Your task to perform on an android device: allow notifications from all sites in the chrome app Image 0: 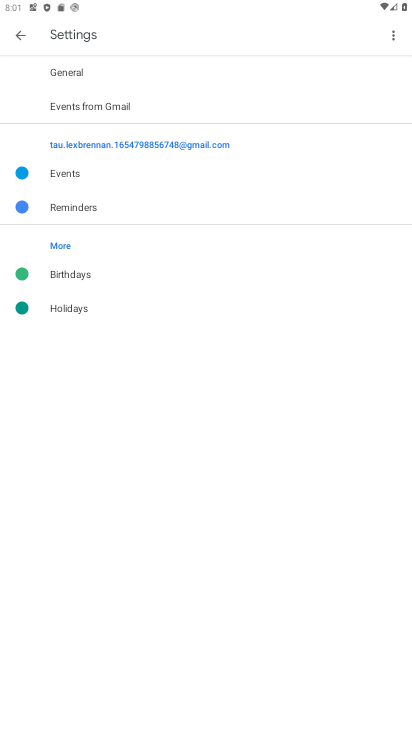
Step 0: press home button
Your task to perform on an android device: allow notifications from all sites in the chrome app Image 1: 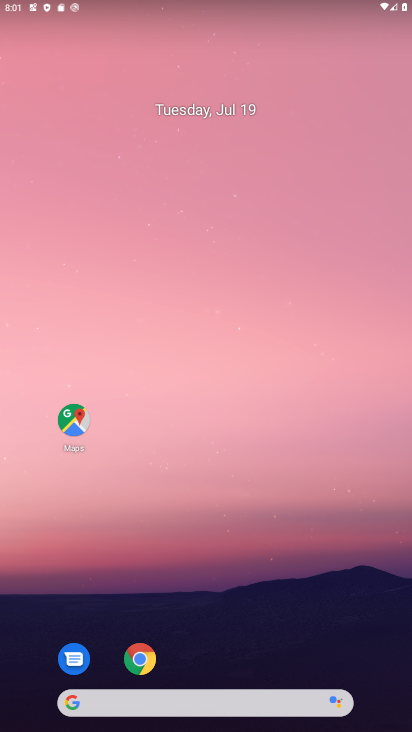
Step 1: click (137, 663)
Your task to perform on an android device: allow notifications from all sites in the chrome app Image 2: 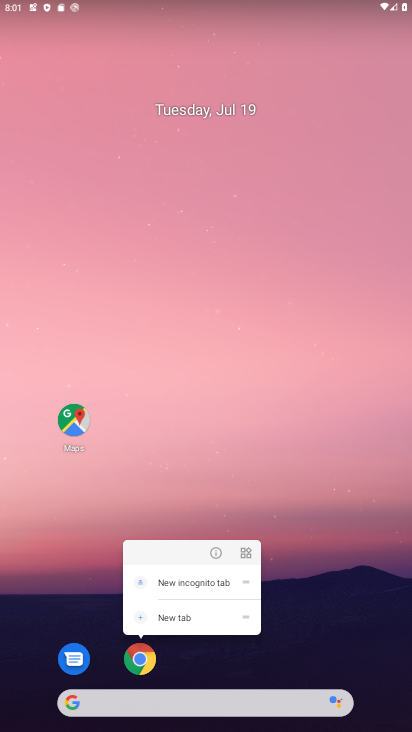
Step 2: click (141, 665)
Your task to perform on an android device: allow notifications from all sites in the chrome app Image 3: 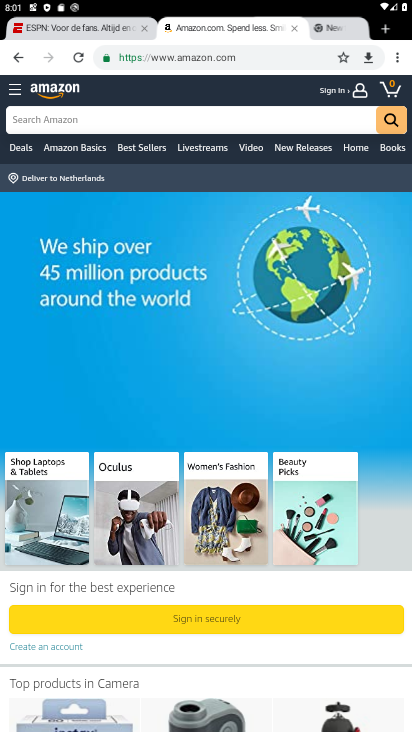
Step 3: click (397, 61)
Your task to perform on an android device: allow notifications from all sites in the chrome app Image 4: 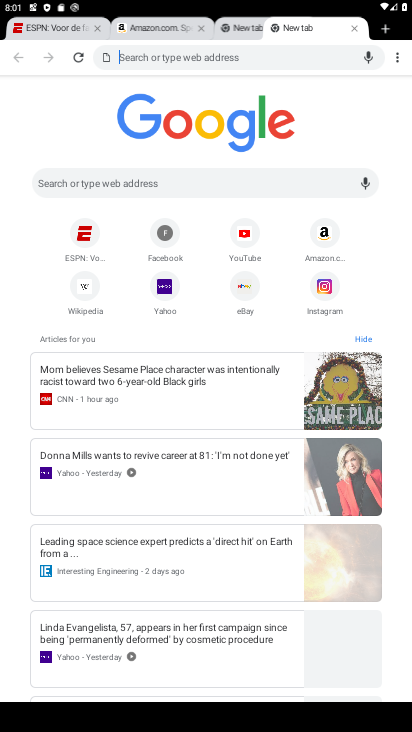
Step 4: click (395, 61)
Your task to perform on an android device: allow notifications from all sites in the chrome app Image 5: 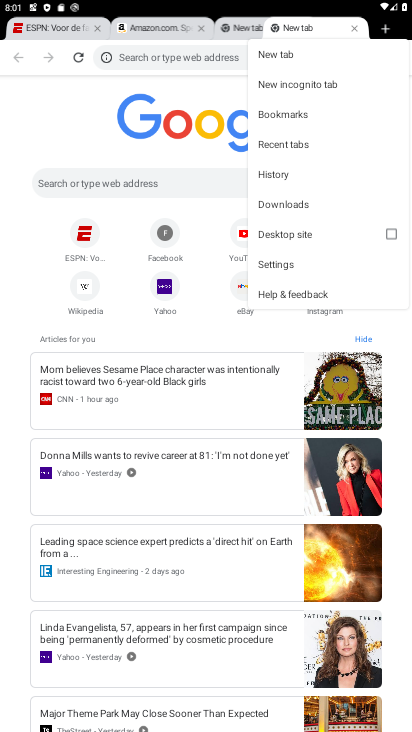
Step 5: click (274, 253)
Your task to perform on an android device: allow notifications from all sites in the chrome app Image 6: 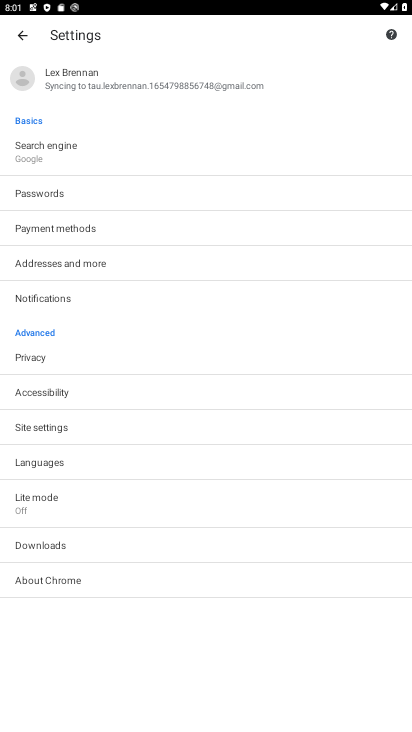
Step 6: click (26, 433)
Your task to perform on an android device: allow notifications from all sites in the chrome app Image 7: 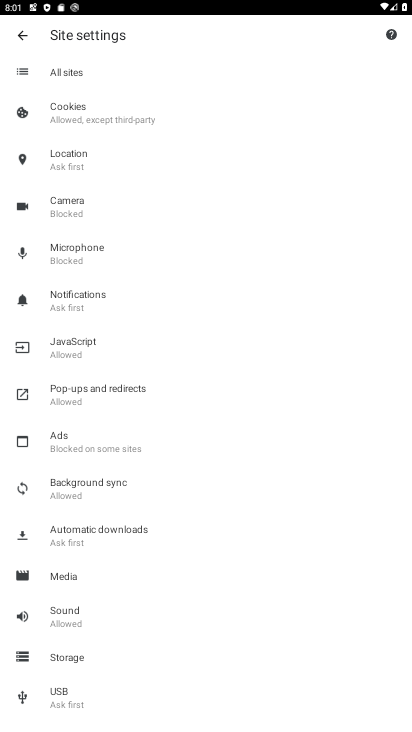
Step 7: click (58, 299)
Your task to perform on an android device: allow notifications from all sites in the chrome app Image 8: 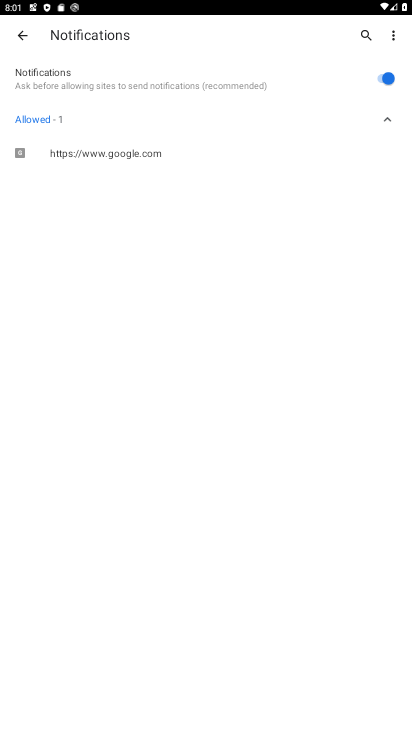
Step 8: task complete